Your task to perform on an android device: turn on notifications settings in the gmail app Image 0: 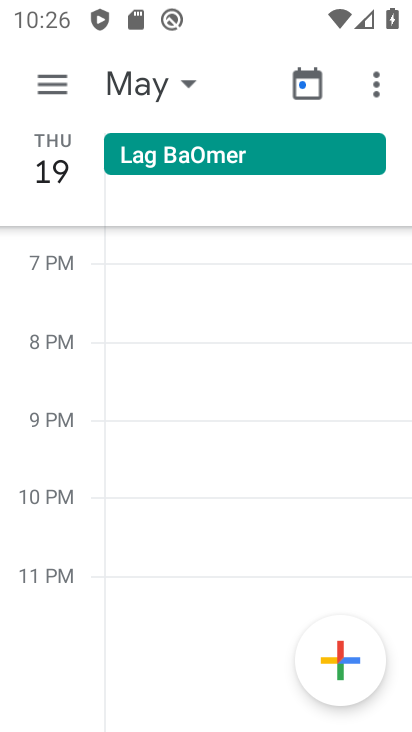
Step 0: press home button
Your task to perform on an android device: turn on notifications settings in the gmail app Image 1: 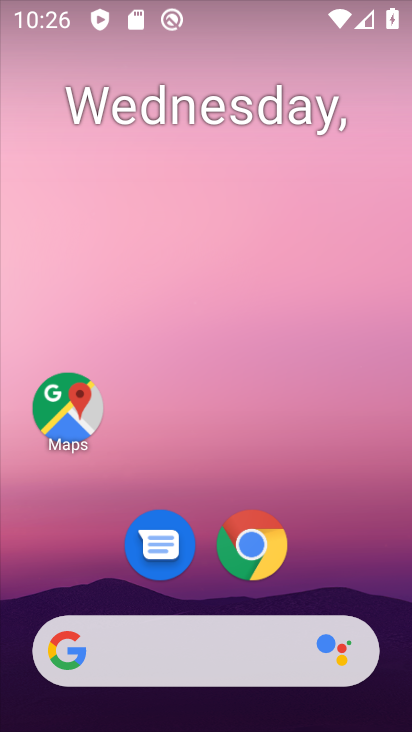
Step 1: drag from (206, 589) to (216, 270)
Your task to perform on an android device: turn on notifications settings in the gmail app Image 2: 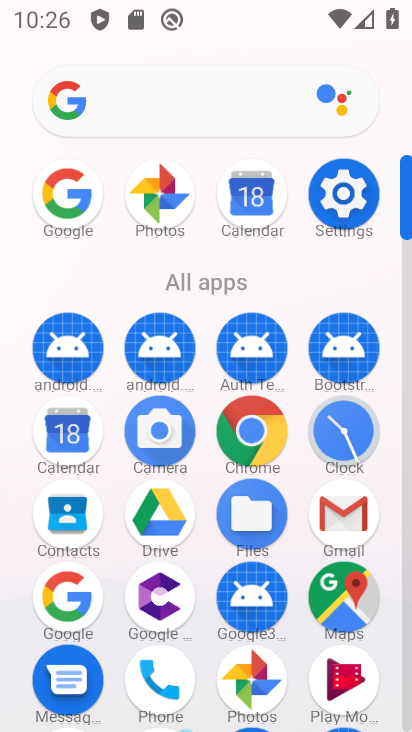
Step 2: click (332, 488)
Your task to perform on an android device: turn on notifications settings in the gmail app Image 3: 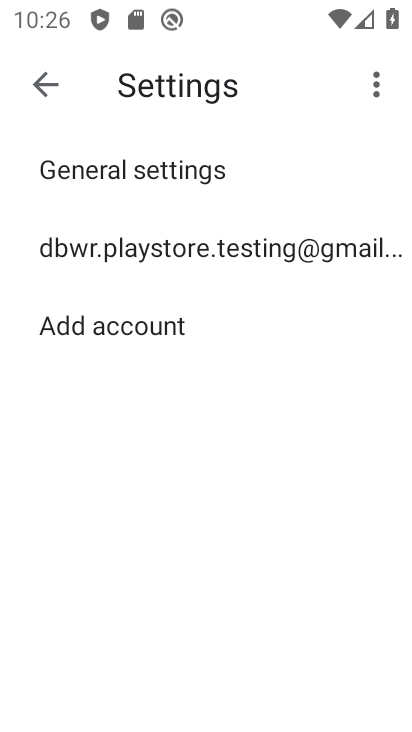
Step 3: click (41, 83)
Your task to perform on an android device: turn on notifications settings in the gmail app Image 4: 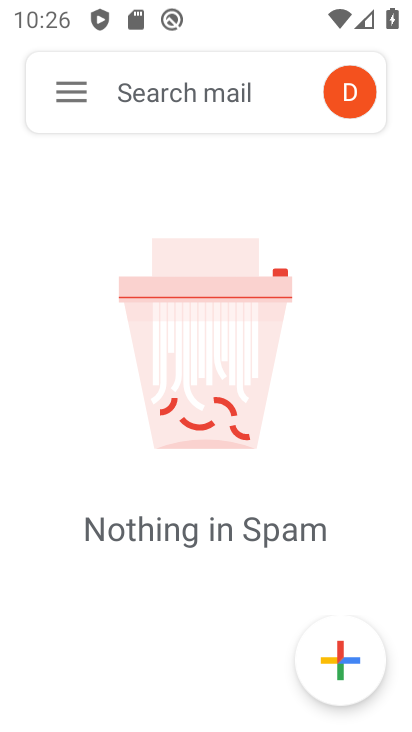
Step 4: click (68, 96)
Your task to perform on an android device: turn on notifications settings in the gmail app Image 5: 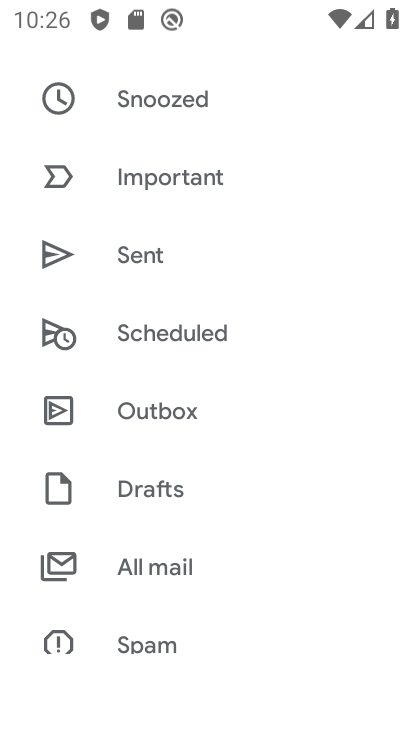
Step 5: drag from (251, 647) to (256, 403)
Your task to perform on an android device: turn on notifications settings in the gmail app Image 6: 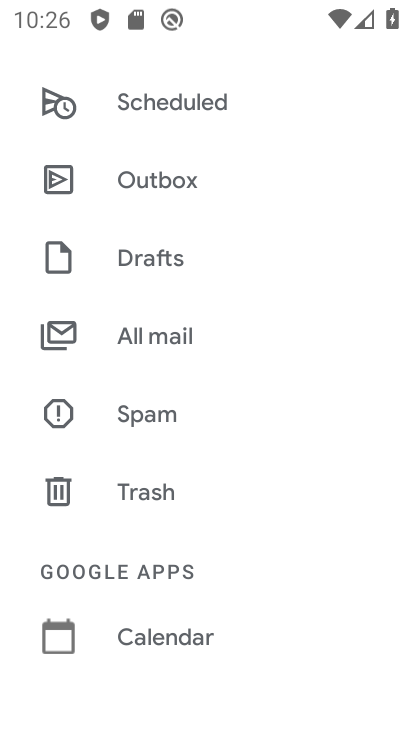
Step 6: drag from (248, 620) to (257, 387)
Your task to perform on an android device: turn on notifications settings in the gmail app Image 7: 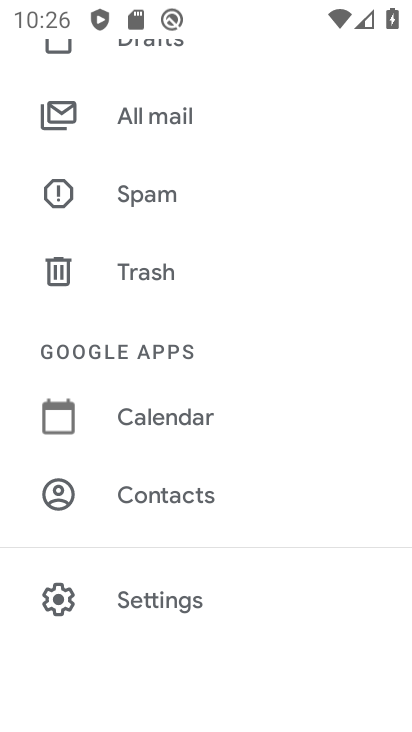
Step 7: click (192, 596)
Your task to perform on an android device: turn on notifications settings in the gmail app Image 8: 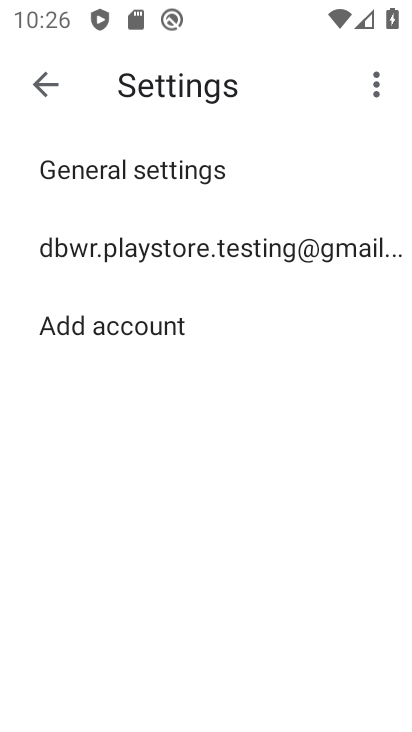
Step 8: click (153, 253)
Your task to perform on an android device: turn on notifications settings in the gmail app Image 9: 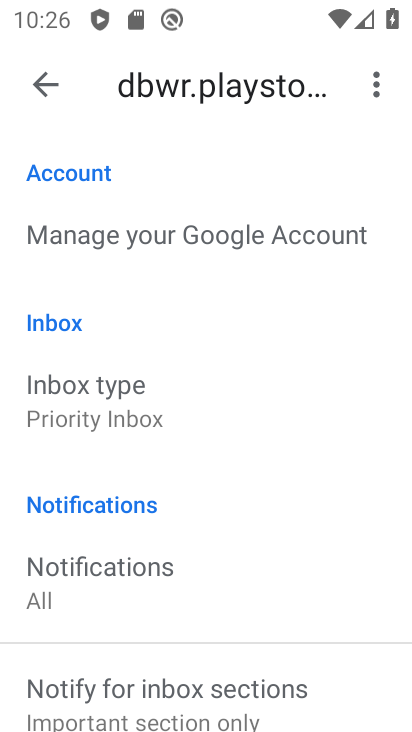
Step 9: drag from (185, 600) to (202, 354)
Your task to perform on an android device: turn on notifications settings in the gmail app Image 10: 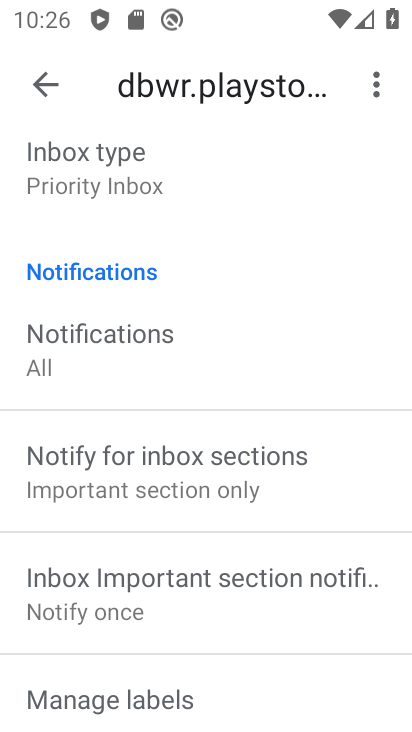
Step 10: drag from (160, 679) to (163, 485)
Your task to perform on an android device: turn on notifications settings in the gmail app Image 11: 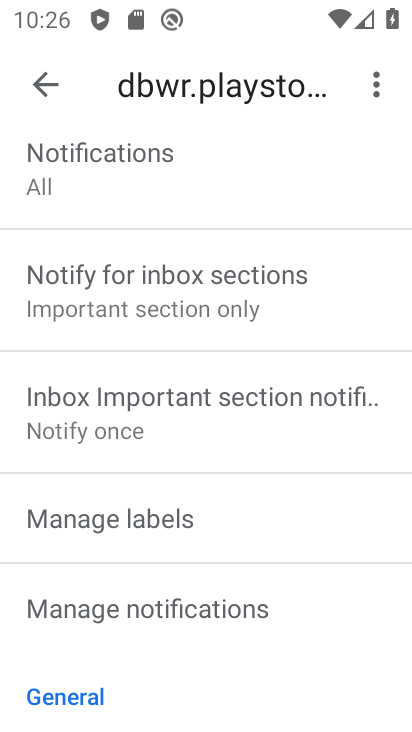
Step 11: click (166, 635)
Your task to perform on an android device: turn on notifications settings in the gmail app Image 12: 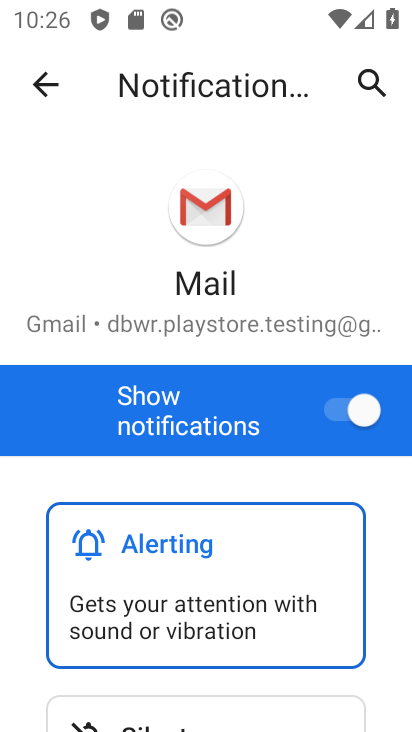
Step 12: task complete